Your task to perform on an android device: turn on the 12-hour format for clock Image 0: 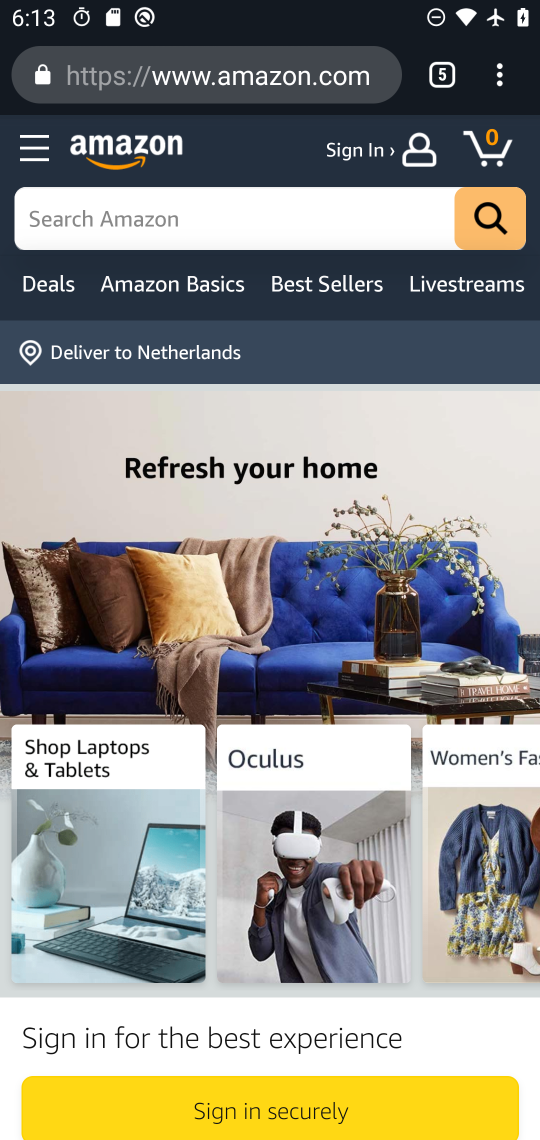
Step 0: press home button
Your task to perform on an android device: turn on the 12-hour format for clock Image 1: 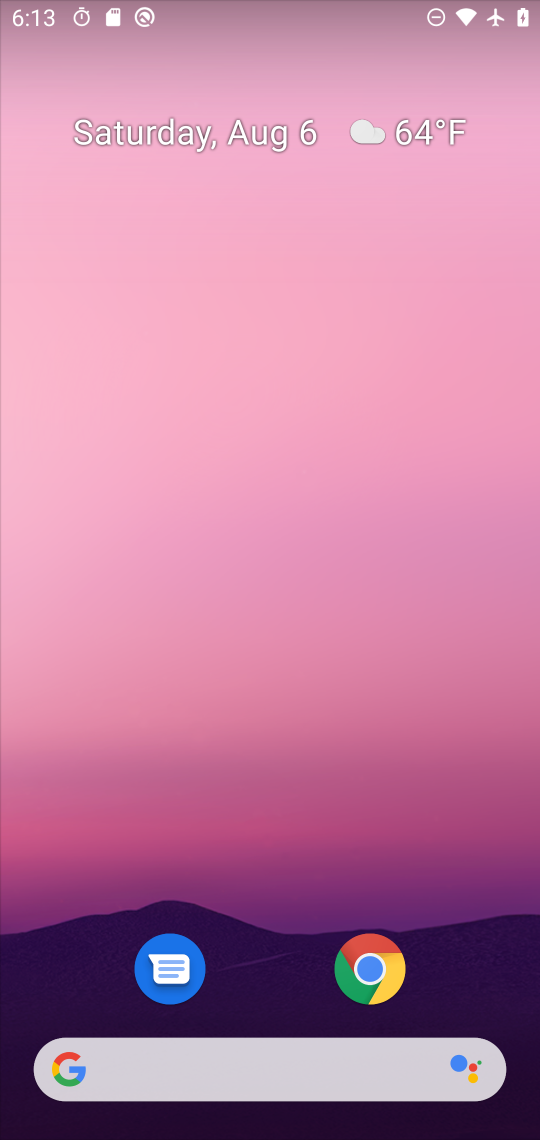
Step 1: drag from (231, 994) to (248, 57)
Your task to perform on an android device: turn on the 12-hour format for clock Image 2: 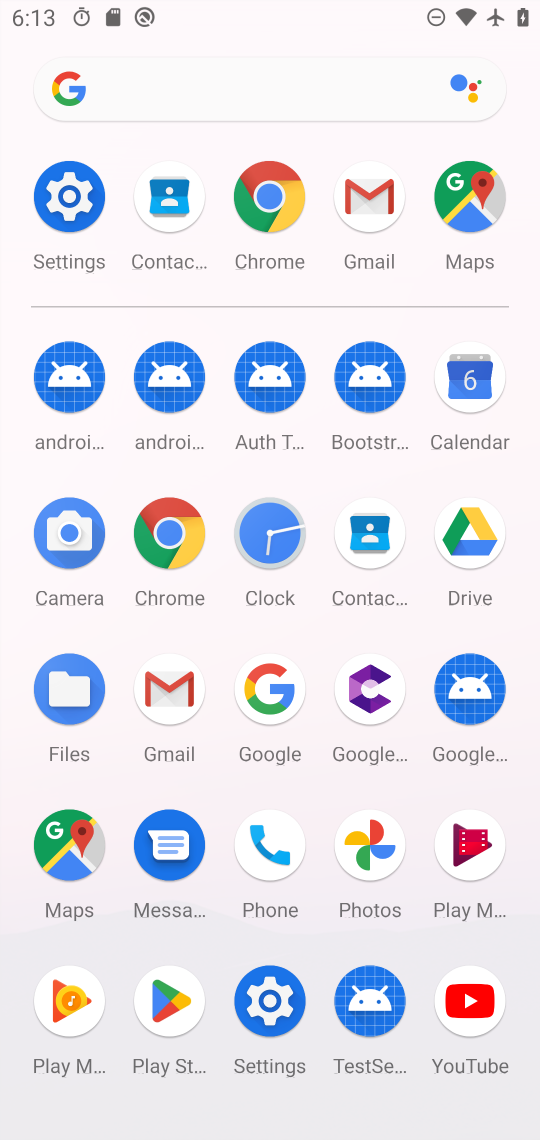
Step 2: click (65, 200)
Your task to perform on an android device: turn on the 12-hour format for clock Image 3: 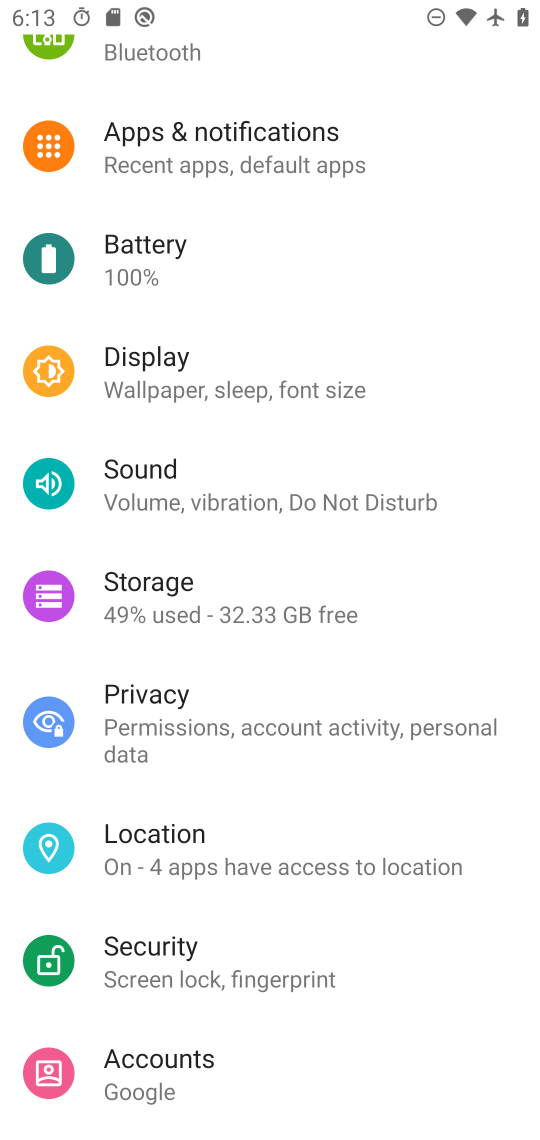
Step 3: drag from (483, 1023) to (414, 146)
Your task to perform on an android device: turn on the 12-hour format for clock Image 4: 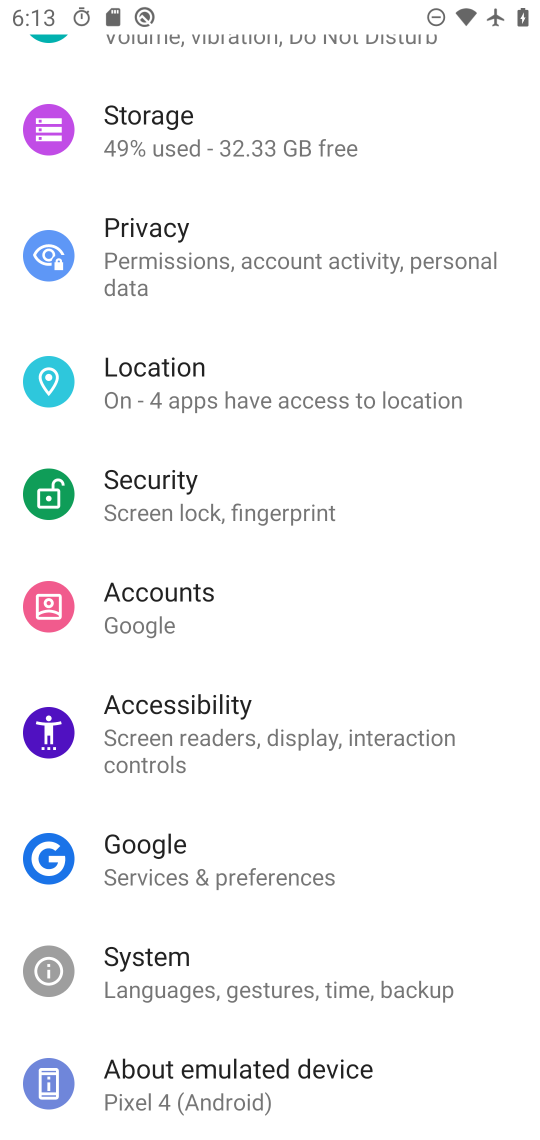
Step 4: click (156, 972)
Your task to perform on an android device: turn on the 12-hour format for clock Image 5: 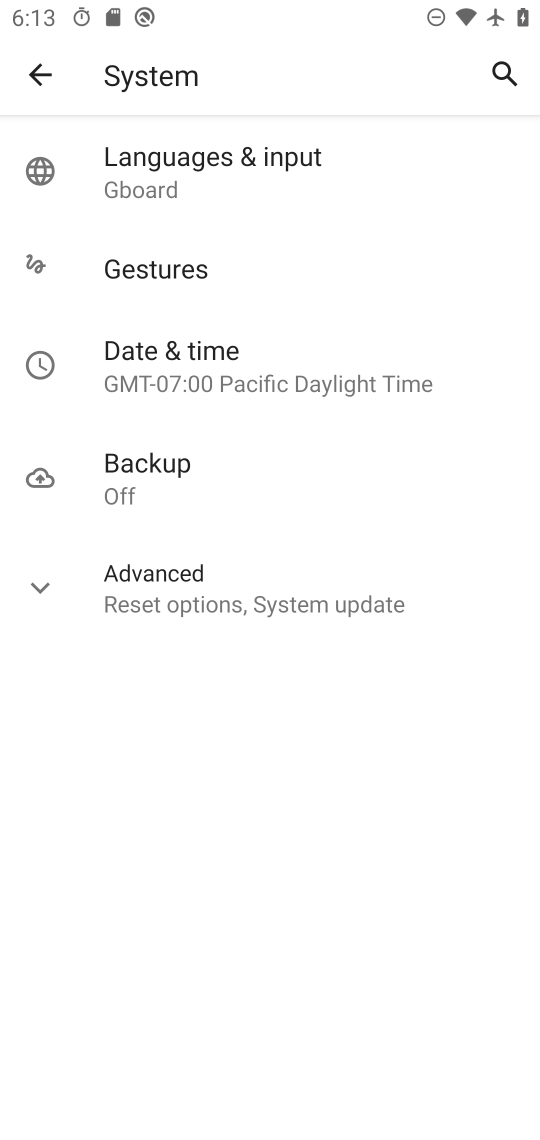
Step 5: click (178, 395)
Your task to perform on an android device: turn on the 12-hour format for clock Image 6: 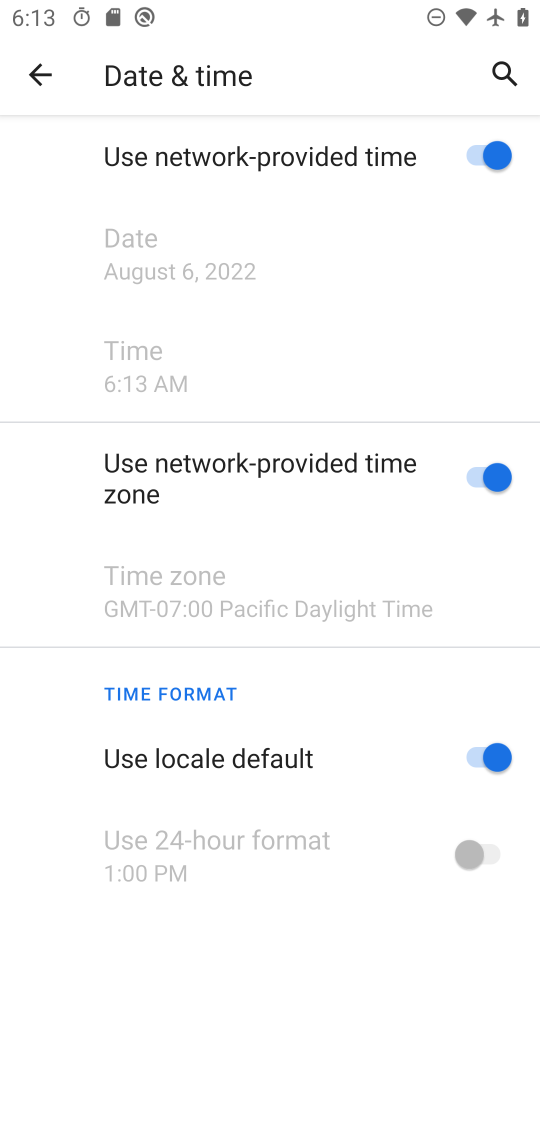
Step 6: click (505, 758)
Your task to perform on an android device: turn on the 12-hour format for clock Image 7: 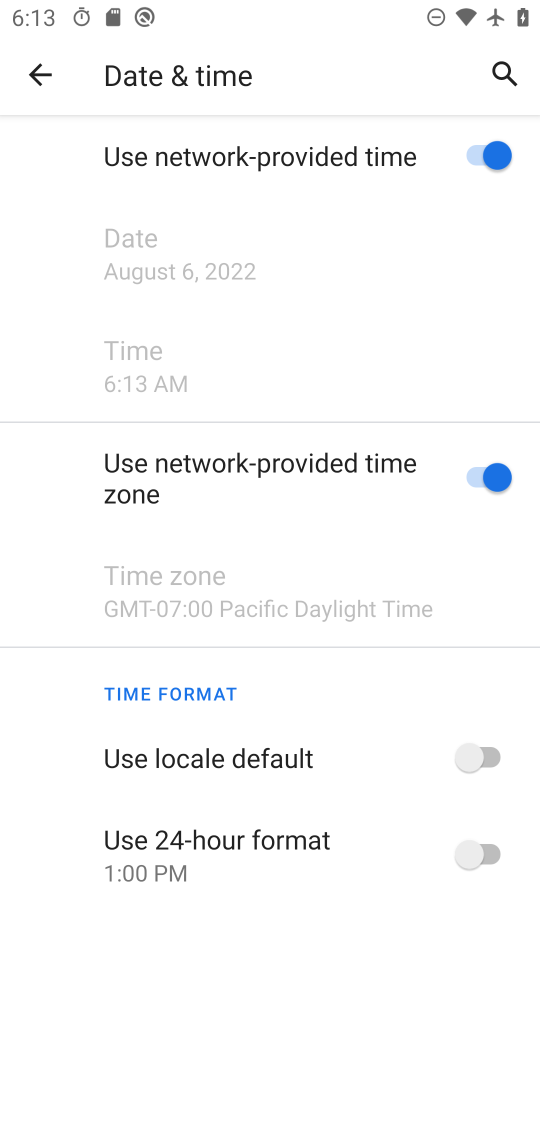
Step 7: task complete